Your task to perform on an android device: Is it going to rain this weekend? Image 0: 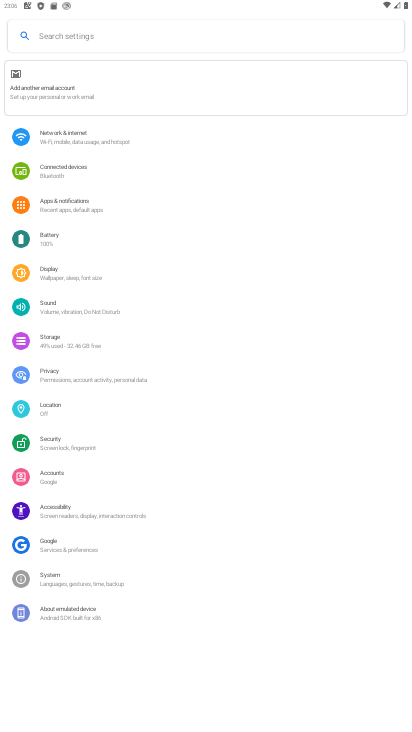
Step 0: press home button
Your task to perform on an android device: Is it going to rain this weekend? Image 1: 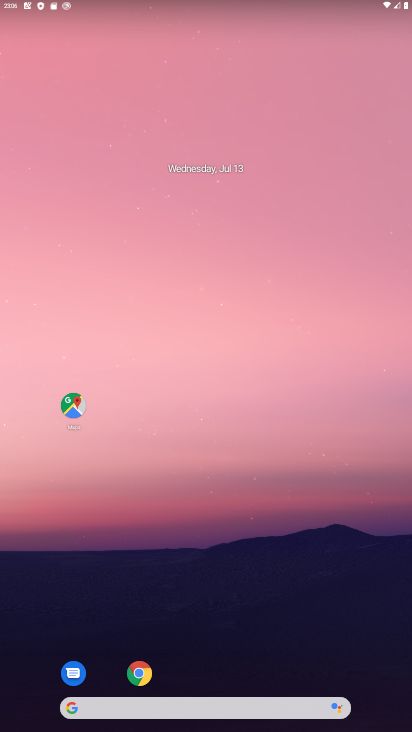
Step 1: drag from (204, 676) to (225, 122)
Your task to perform on an android device: Is it going to rain this weekend? Image 2: 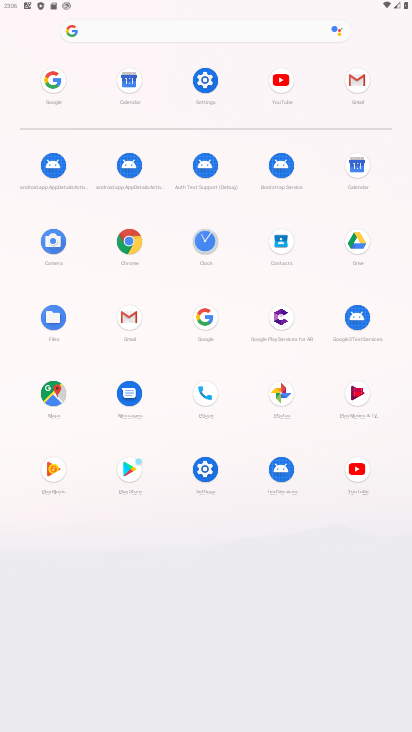
Step 2: click (209, 312)
Your task to perform on an android device: Is it going to rain this weekend? Image 3: 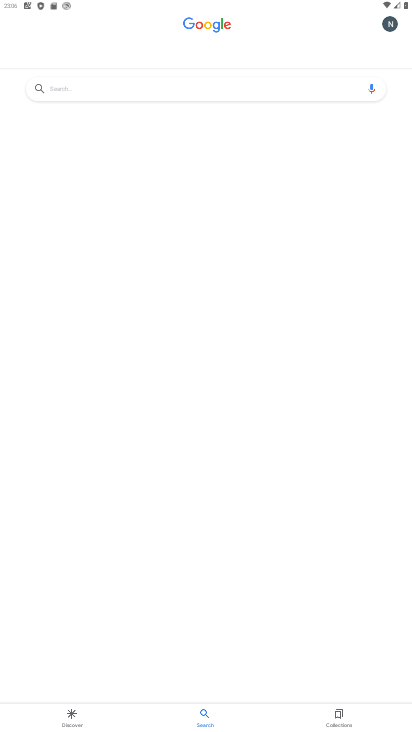
Step 3: click (119, 79)
Your task to perform on an android device: Is it going to rain this weekend? Image 4: 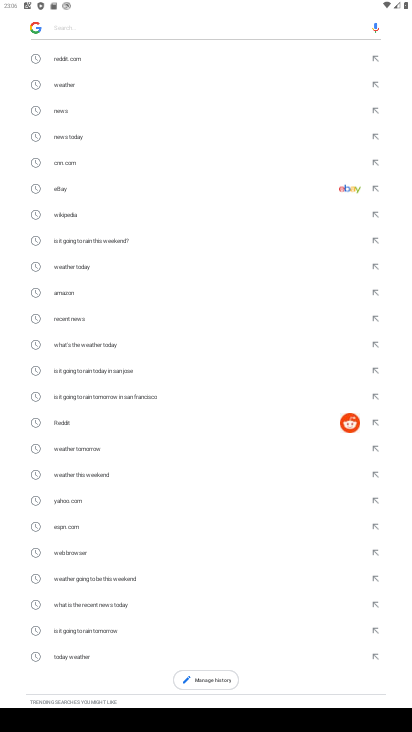
Step 4: click (71, 85)
Your task to perform on an android device: Is it going to rain this weekend? Image 5: 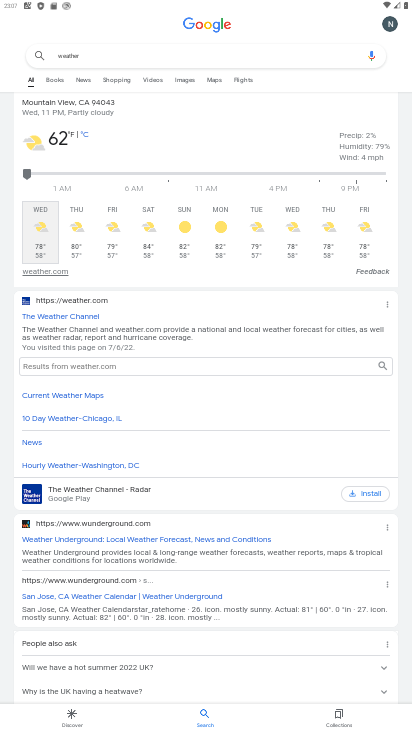
Step 5: click (356, 145)
Your task to perform on an android device: Is it going to rain this weekend? Image 6: 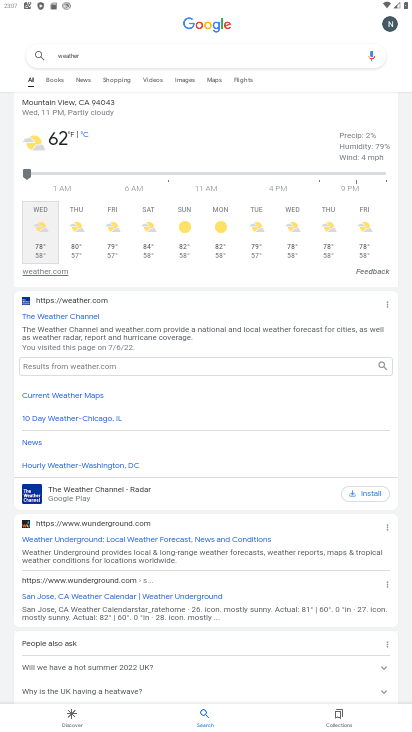
Step 6: task complete